Your task to perform on an android device: Go to Yahoo.com Image 0: 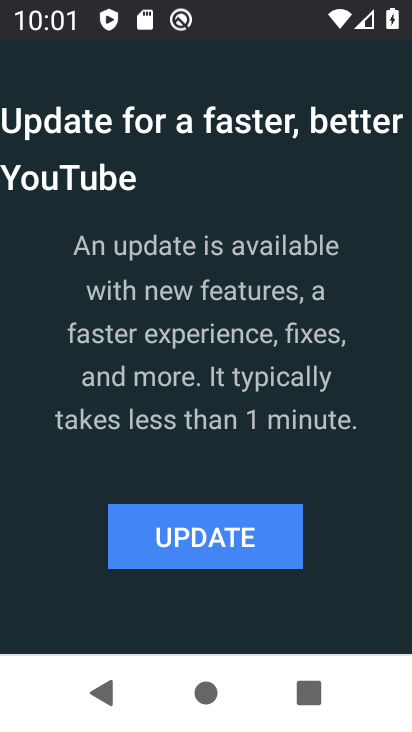
Step 0: drag from (351, 539) to (346, 222)
Your task to perform on an android device: Go to Yahoo.com Image 1: 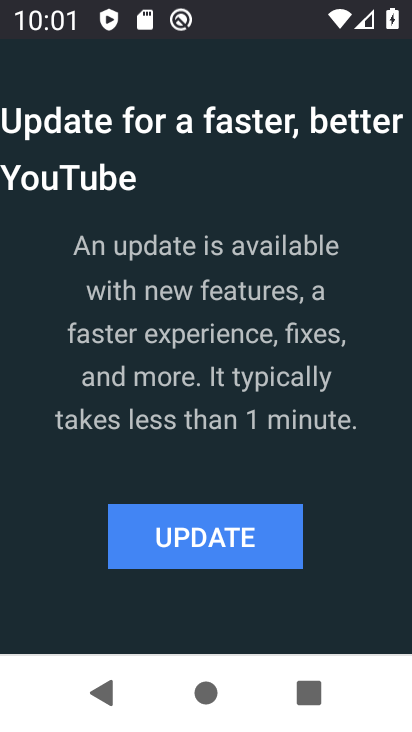
Step 1: press home button
Your task to perform on an android device: Go to Yahoo.com Image 2: 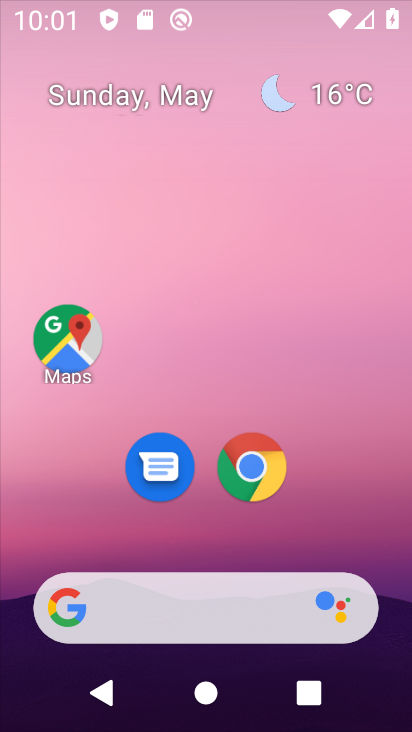
Step 2: drag from (366, 566) to (321, 173)
Your task to perform on an android device: Go to Yahoo.com Image 3: 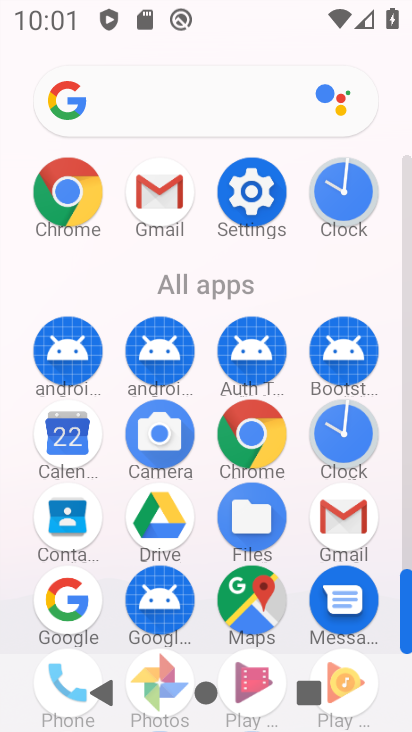
Step 3: click (241, 456)
Your task to perform on an android device: Go to Yahoo.com Image 4: 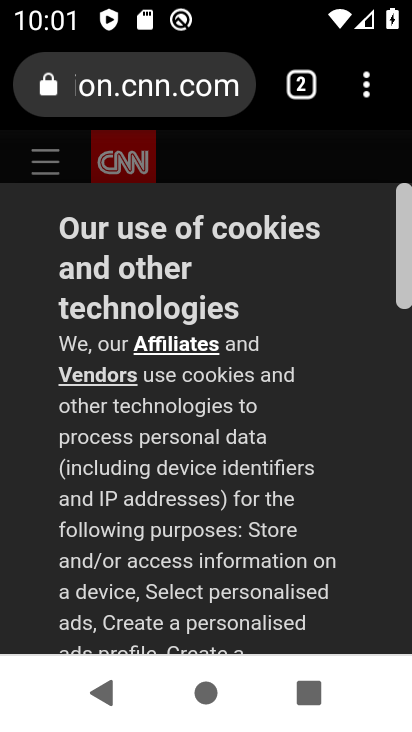
Step 4: click (176, 85)
Your task to perform on an android device: Go to Yahoo.com Image 5: 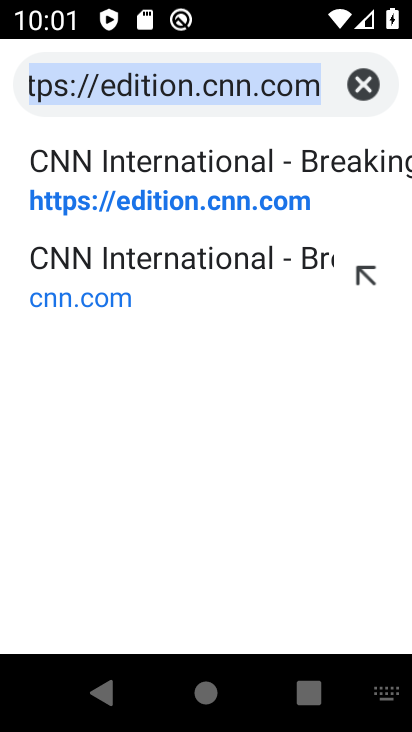
Step 5: click (361, 81)
Your task to perform on an android device: Go to Yahoo.com Image 6: 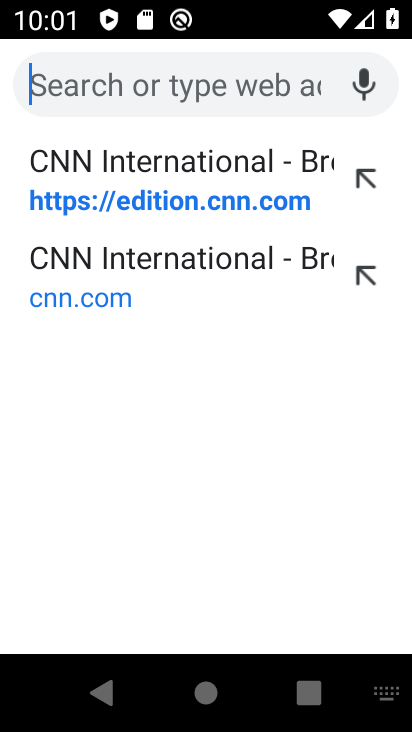
Step 6: type "yahoo.com"
Your task to perform on an android device: Go to Yahoo.com Image 7: 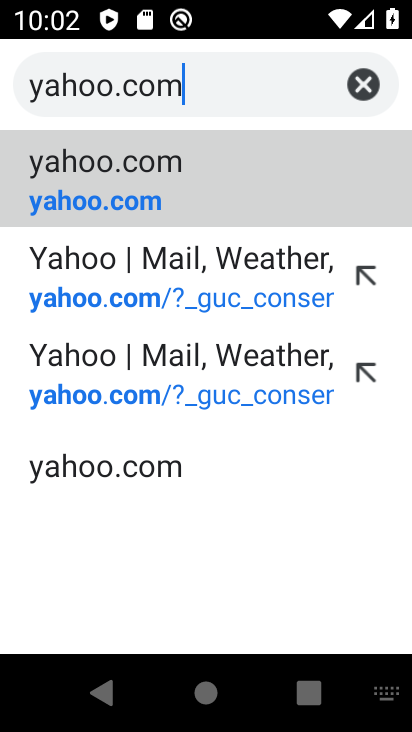
Step 7: click (167, 176)
Your task to perform on an android device: Go to Yahoo.com Image 8: 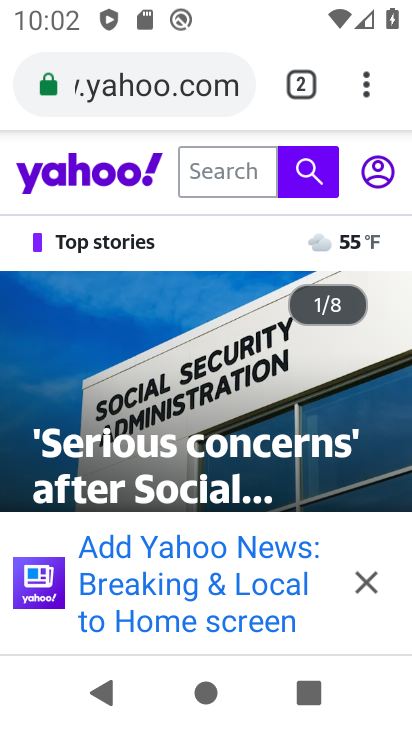
Step 8: task complete